Your task to perform on an android device: Open privacy settings Image 0: 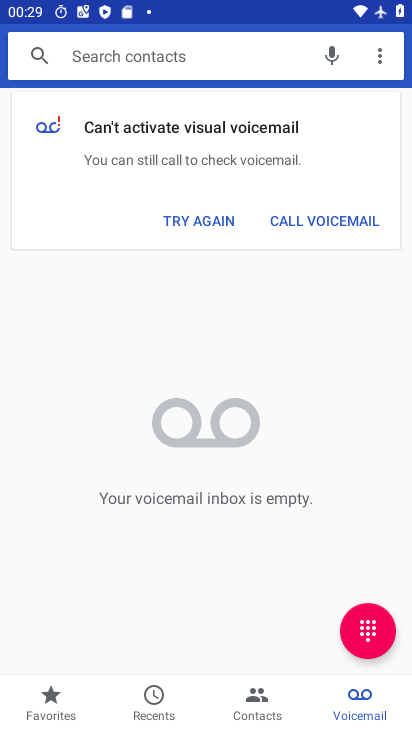
Step 0: press home button
Your task to perform on an android device: Open privacy settings Image 1: 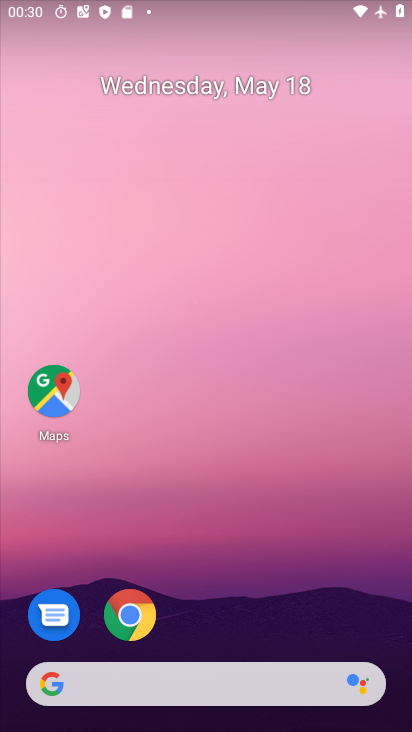
Step 1: drag from (212, 623) to (221, 211)
Your task to perform on an android device: Open privacy settings Image 2: 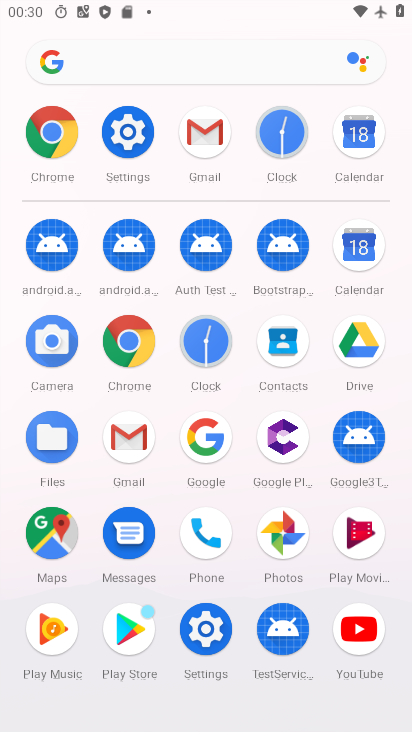
Step 2: click (131, 139)
Your task to perform on an android device: Open privacy settings Image 3: 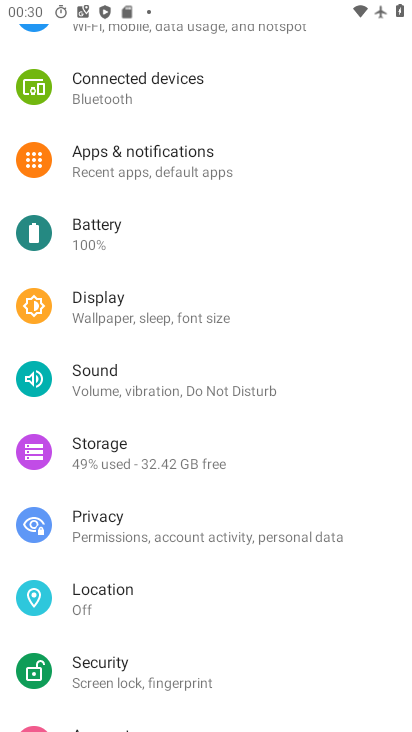
Step 3: click (123, 539)
Your task to perform on an android device: Open privacy settings Image 4: 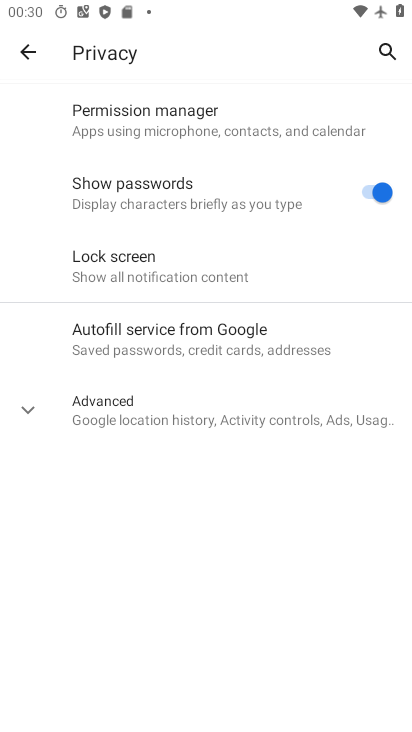
Step 4: task complete